Your task to perform on an android device: turn off translation in the chrome app Image 0: 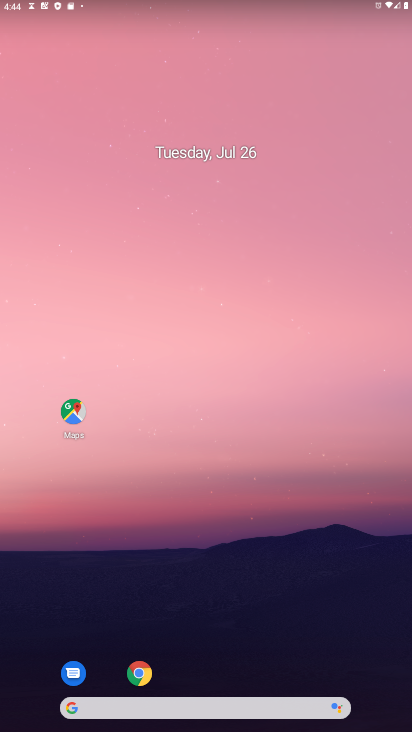
Step 0: click (138, 674)
Your task to perform on an android device: turn off translation in the chrome app Image 1: 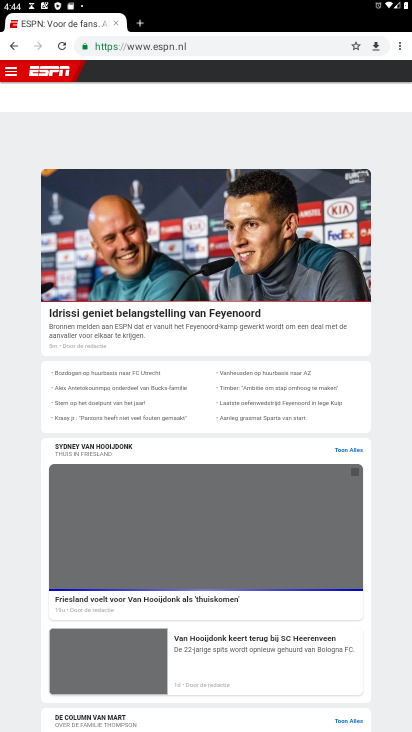
Step 1: click (402, 45)
Your task to perform on an android device: turn off translation in the chrome app Image 2: 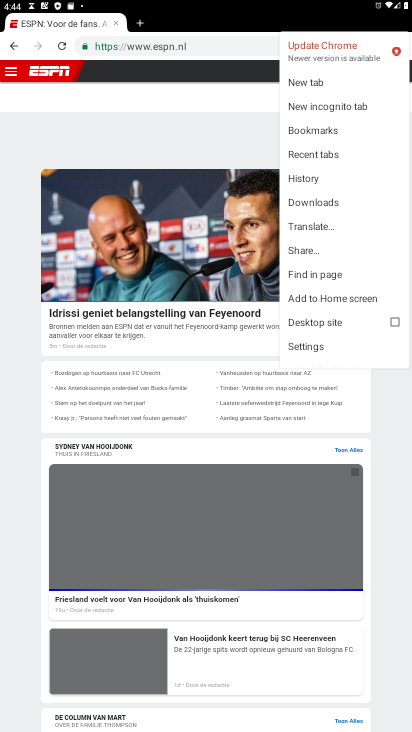
Step 2: click (312, 345)
Your task to perform on an android device: turn off translation in the chrome app Image 3: 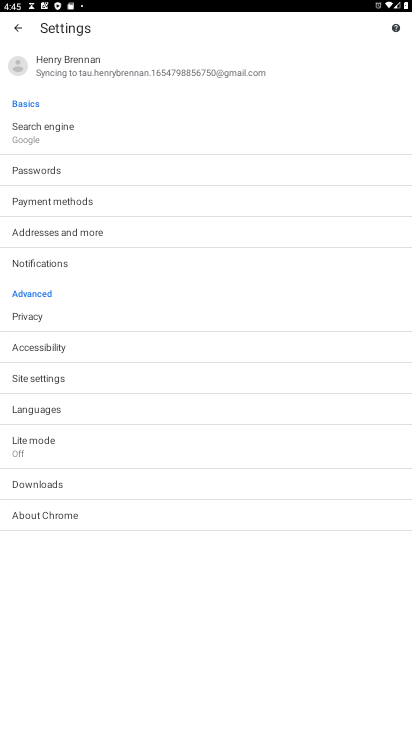
Step 3: click (46, 408)
Your task to perform on an android device: turn off translation in the chrome app Image 4: 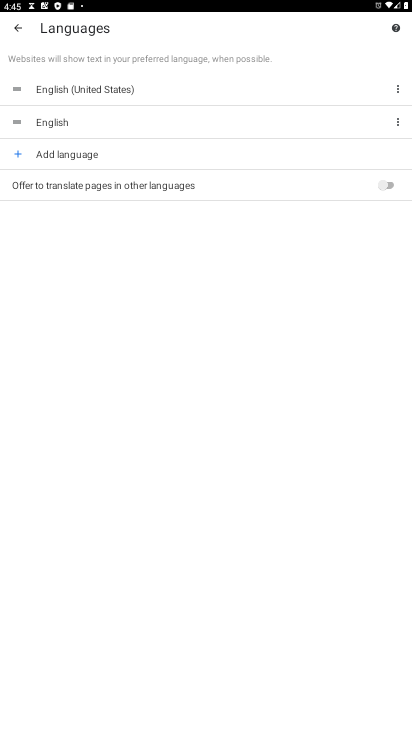
Step 4: task complete